Your task to perform on an android device: What is the news today? Image 0: 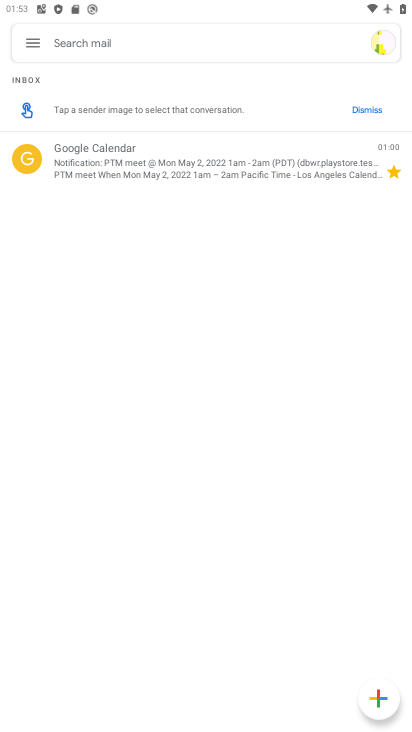
Step 0: press home button
Your task to perform on an android device: What is the news today? Image 1: 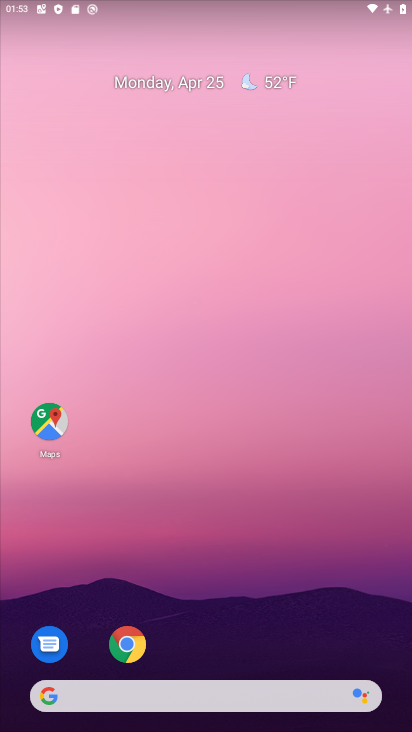
Step 1: drag from (229, 595) to (167, 178)
Your task to perform on an android device: What is the news today? Image 2: 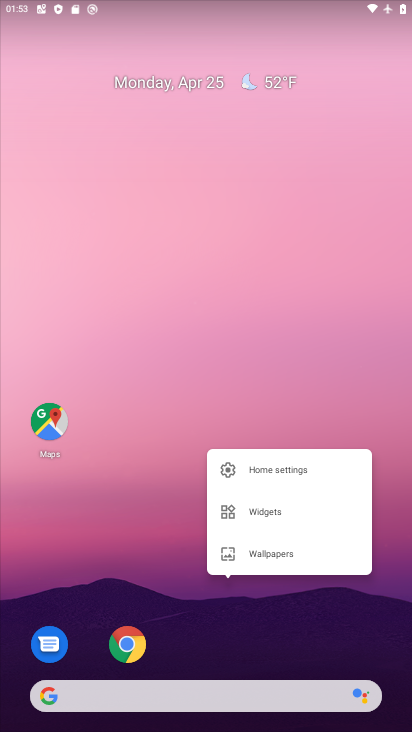
Step 2: click (168, 409)
Your task to perform on an android device: What is the news today? Image 3: 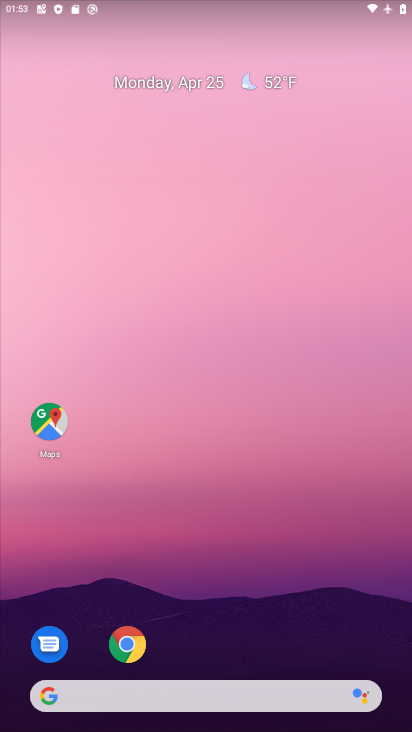
Step 3: click (178, 561)
Your task to perform on an android device: What is the news today? Image 4: 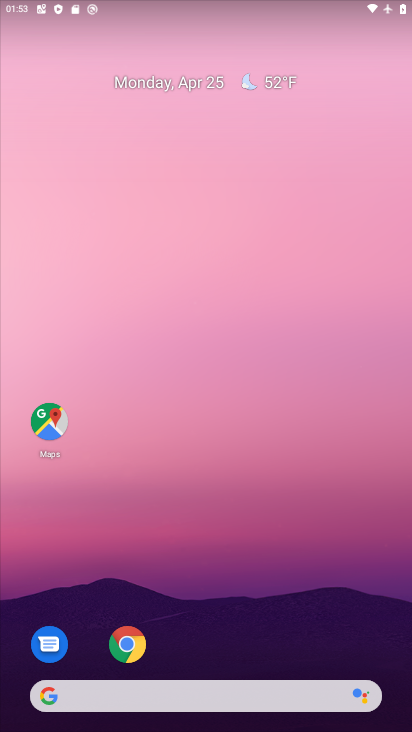
Step 4: drag from (234, 636) to (186, 11)
Your task to perform on an android device: What is the news today? Image 5: 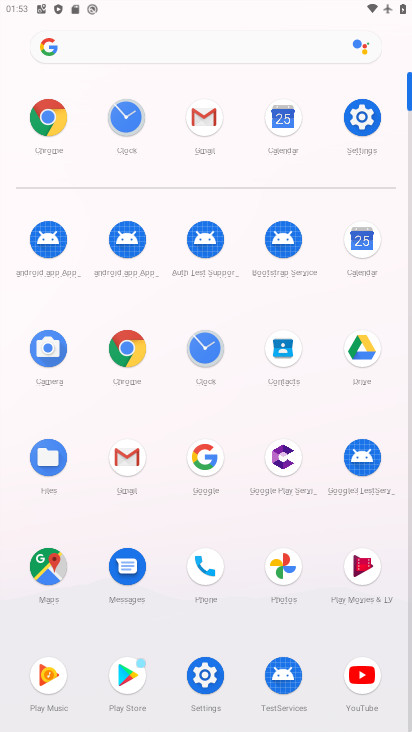
Step 5: click (47, 135)
Your task to perform on an android device: What is the news today? Image 6: 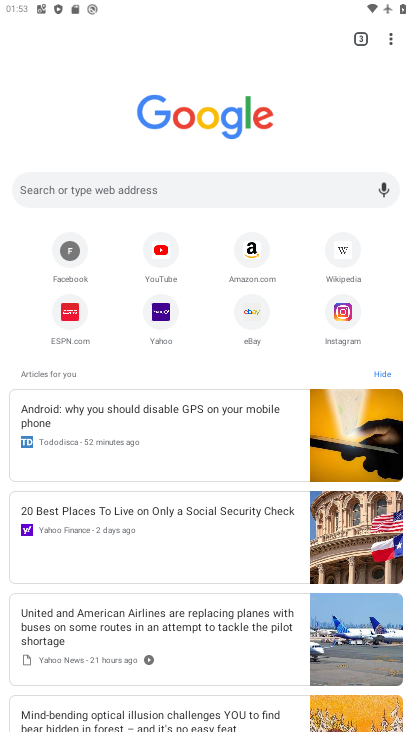
Step 6: task complete